Your task to perform on an android device: Go to network settings Image 0: 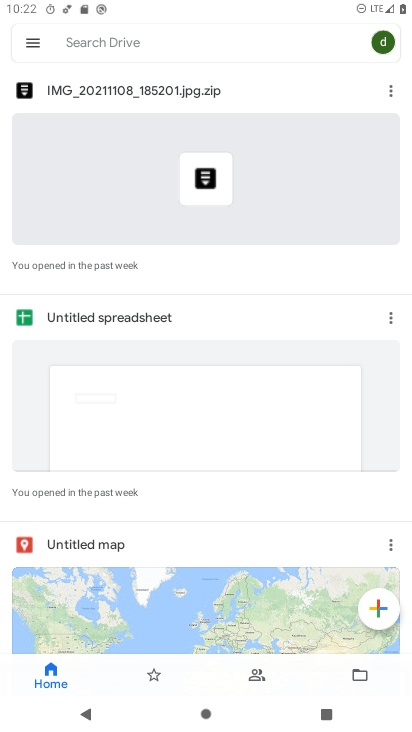
Step 0: press home button
Your task to perform on an android device: Go to network settings Image 1: 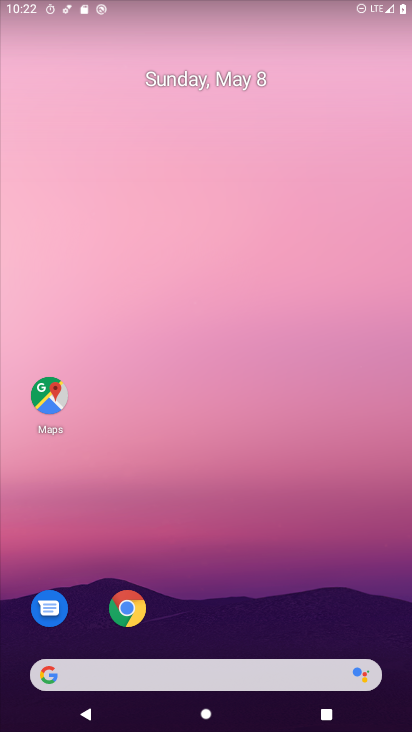
Step 1: drag from (161, 648) to (223, 194)
Your task to perform on an android device: Go to network settings Image 2: 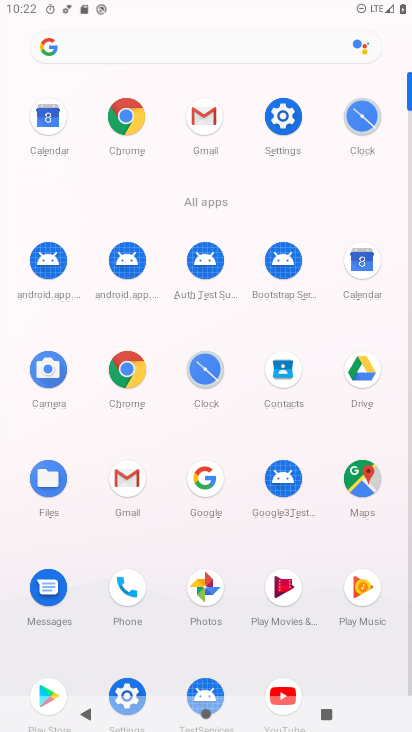
Step 2: click (279, 113)
Your task to perform on an android device: Go to network settings Image 3: 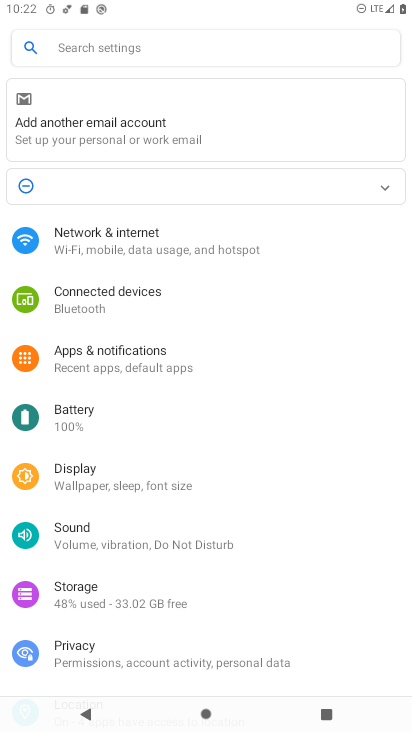
Step 3: drag from (135, 624) to (170, 322)
Your task to perform on an android device: Go to network settings Image 4: 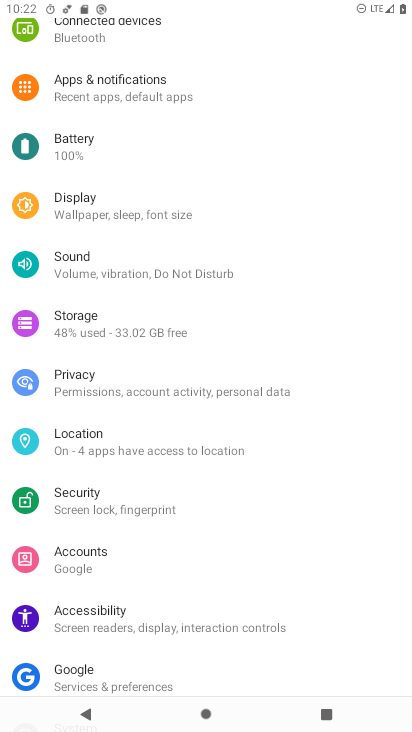
Step 4: drag from (159, 179) to (172, 613)
Your task to perform on an android device: Go to network settings Image 5: 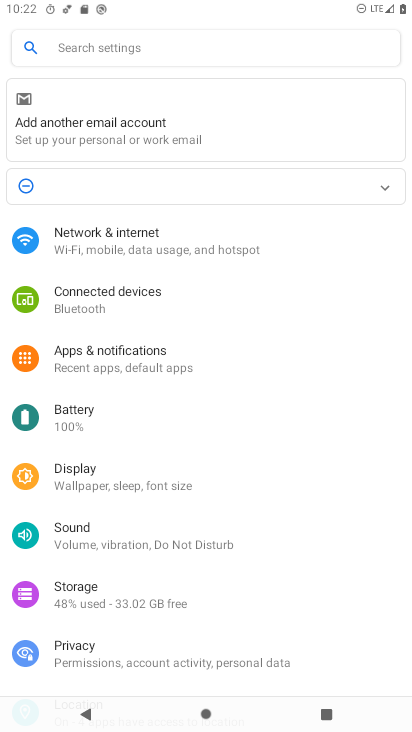
Step 5: click (122, 254)
Your task to perform on an android device: Go to network settings Image 6: 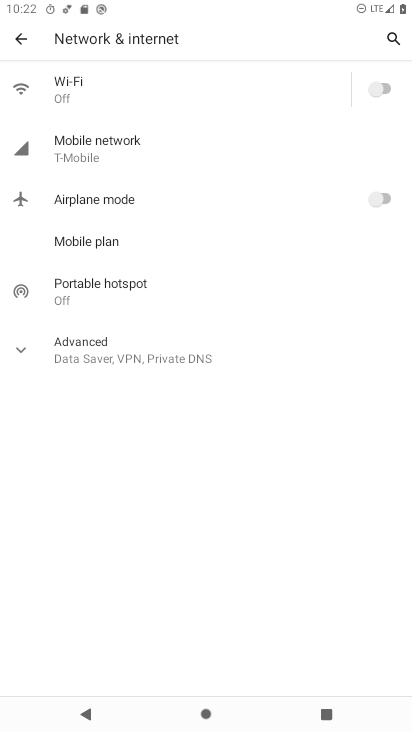
Step 6: task complete